Your task to perform on an android device: Go to Google Image 0: 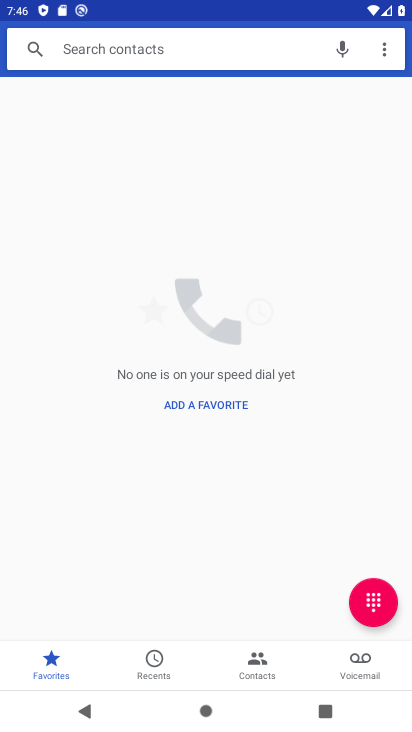
Step 0: press home button
Your task to perform on an android device: Go to Google Image 1: 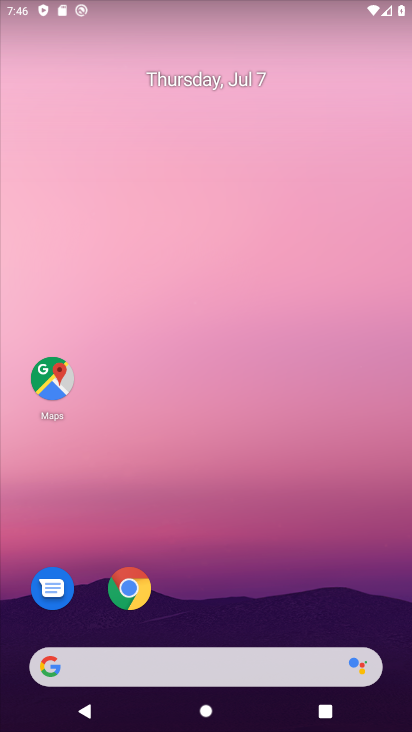
Step 1: drag from (314, 365) to (272, 40)
Your task to perform on an android device: Go to Google Image 2: 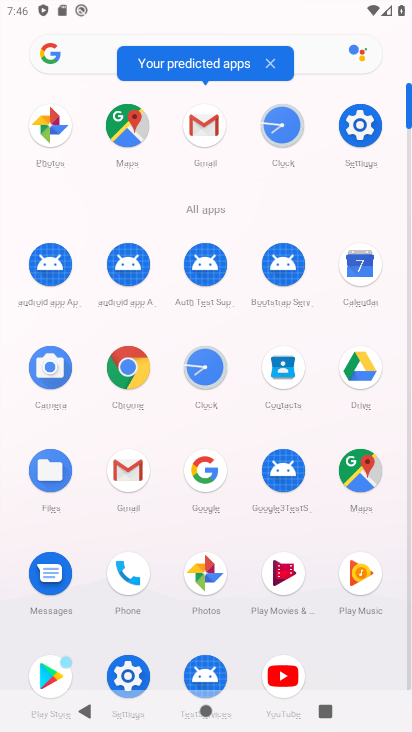
Step 2: click (209, 465)
Your task to perform on an android device: Go to Google Image 3: 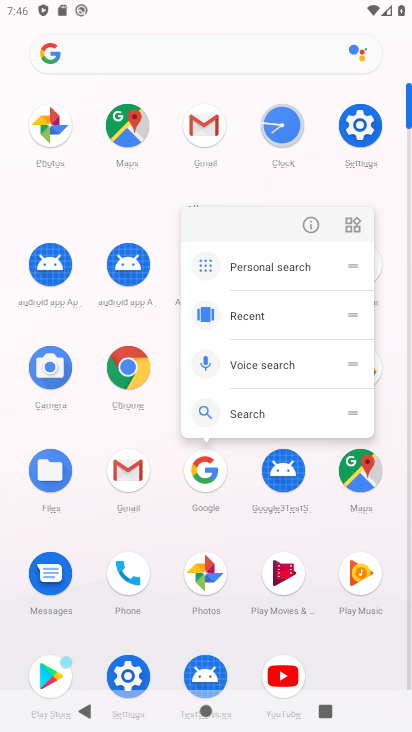
Step 3: click (197, 470)
Your task to perform on an android device: Go to Google Image 4: 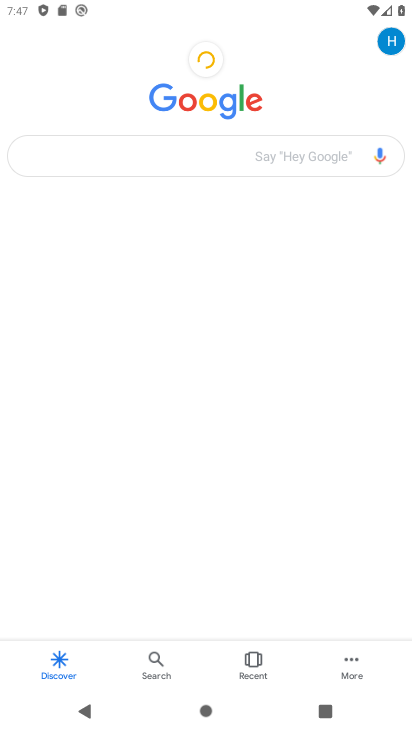
Step 4: task complete